Your task to perform on an android device: Open Youtube and go to the subscriptions tab Image 0: 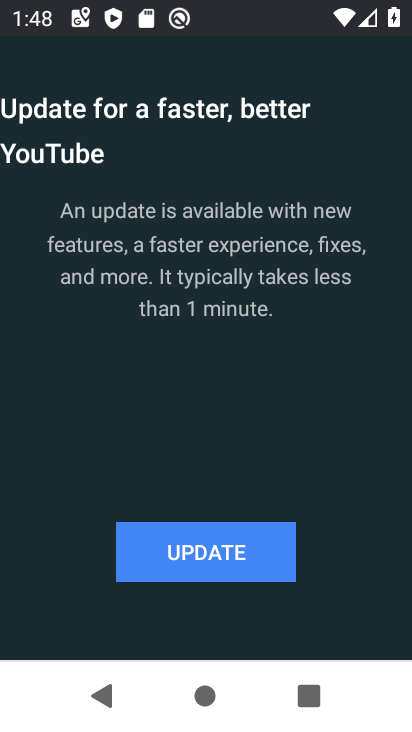
Step 0: press home button
Your task to perform on an android device: Open Youtube and go to the subscriptions tab Image 1: 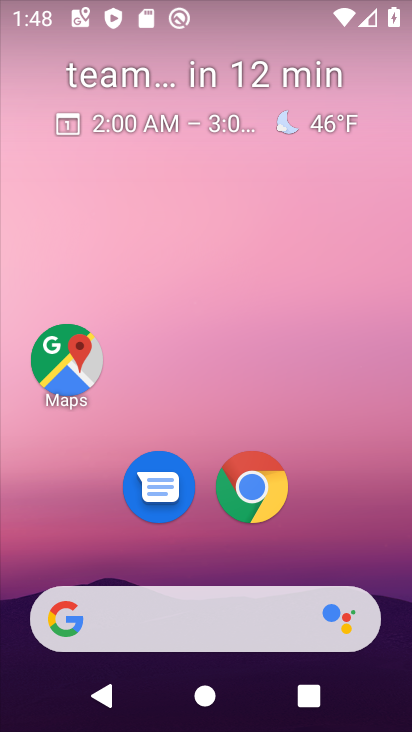
Step 1: drag from (311, 377) to (285, 27)
Your task to perform on an android device: Open Youtube and go to the subscriptions tab Image 2: 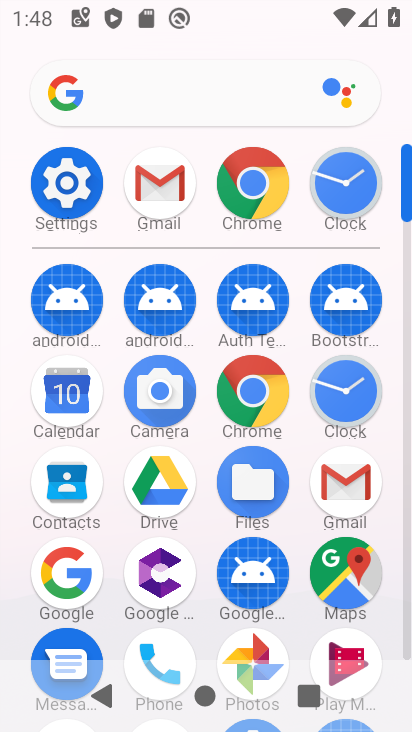
Step 2: drag from (318, 632) to (302, 194)
Your task to perform on an android device: Open Youtube and go to the subscriptions tab Image 3: 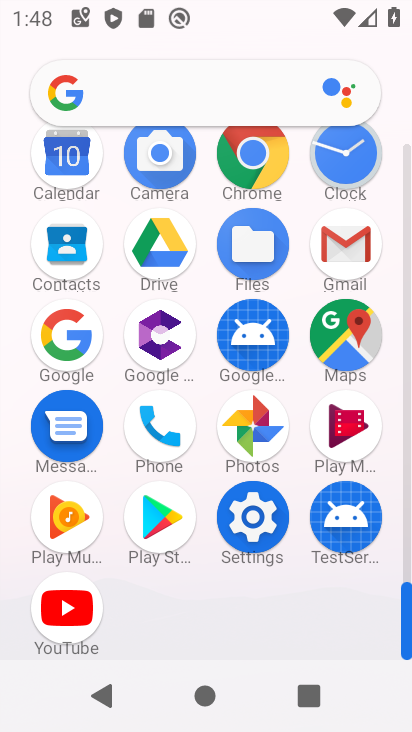
Step 3: click (71, 630)
Your task to perform on an android device: Open Youtube and go to the subscriptions tab Image 4: 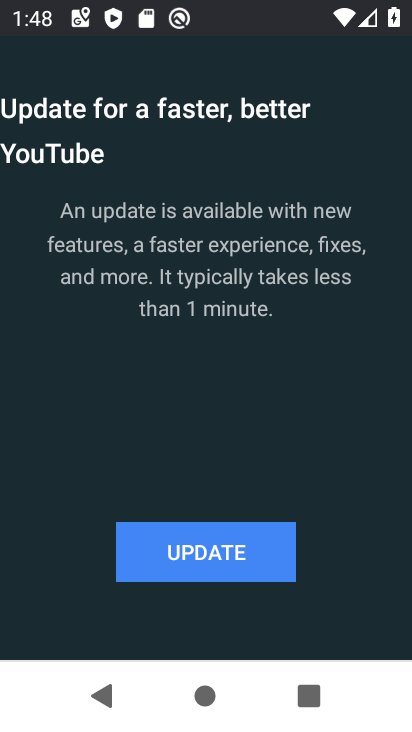
Step 4: click (251, 561)
Your task to perform on an android device: Open Youtube and go to the subscriptions tab Image 5: 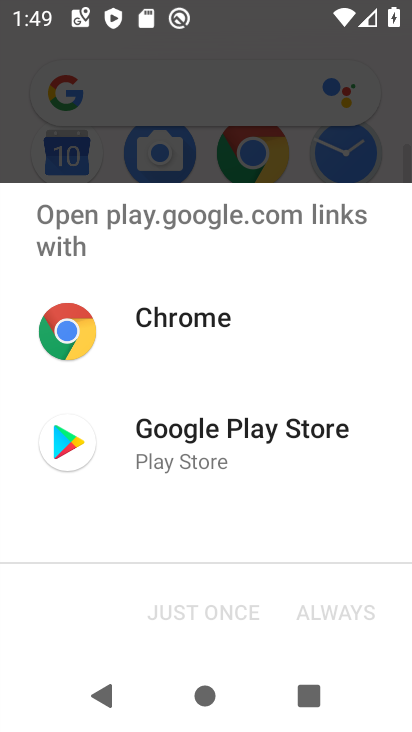
Step 5: click (171, 448)
Your task to perform on an android device: Open Youtube and go to the subscriptions tab Image 6: 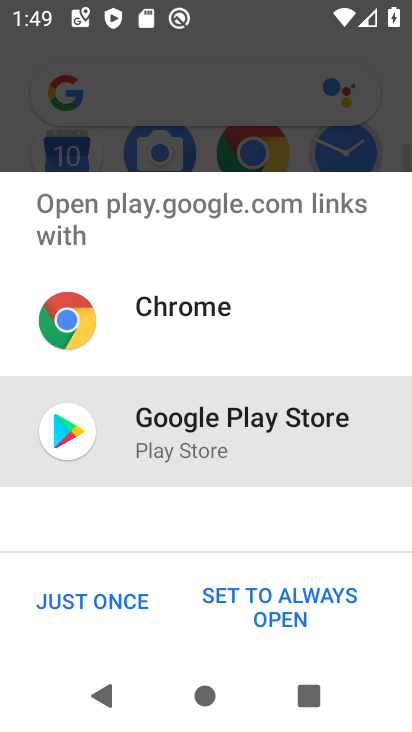
Step 6: click (95, 601)
Your task to perform on an android device: Open Youtube and go to the subscriptions tab Image 7: 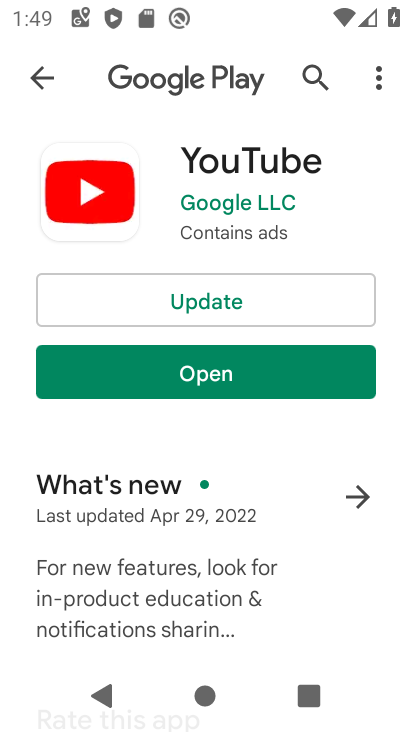
Step 7: click (290, 293)
Your task to perform on an android device: Open Youtube and go to the subscriptions tab Image 8: 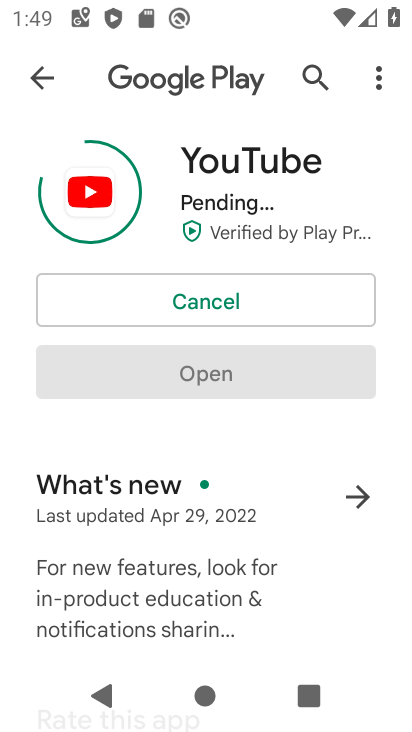
Step 8: task complete